Your task to perform on an android device: turn off location history Image 0: 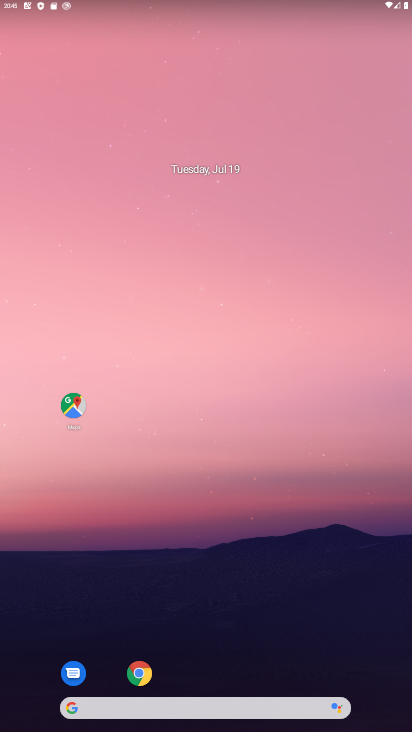
Step 0: drag from (239, 612) to (302, 102)
Your task to perform on an android device: turn off location history Image 1: 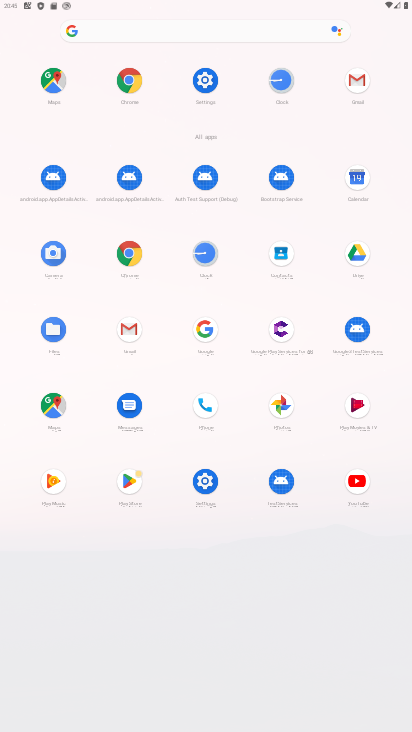
Step 1: click (212, 492)
Your task to perform on an android device: turn off location history Image 2: 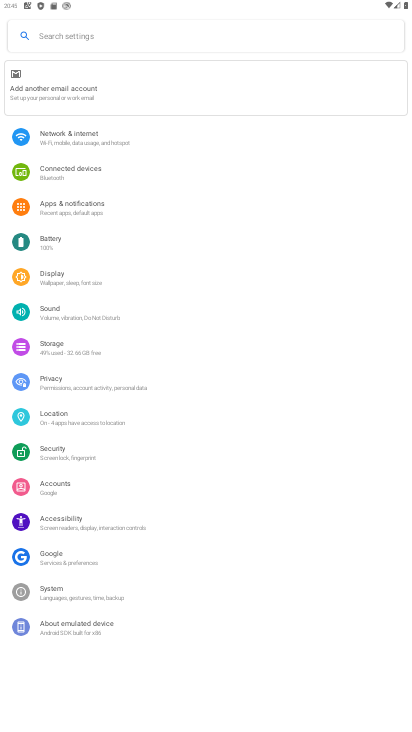
Step 2: click (75, 419)
Your task to perform on an android device: turn off location history Image 3: 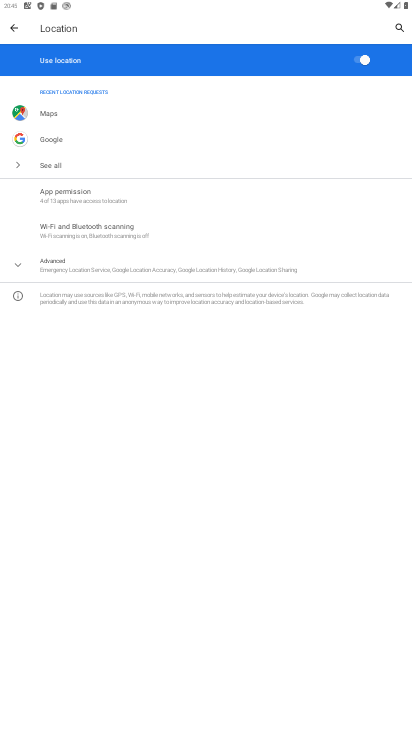
Step 3: click (128, 271)
Your task to perform on an android device: turn off location history Image 4: 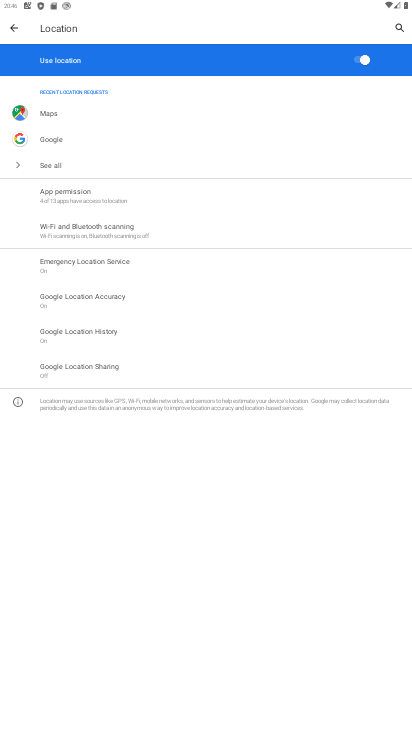
Step 4: click (109, 336)
Your task to perform on an android device: turn off location history Image 5: 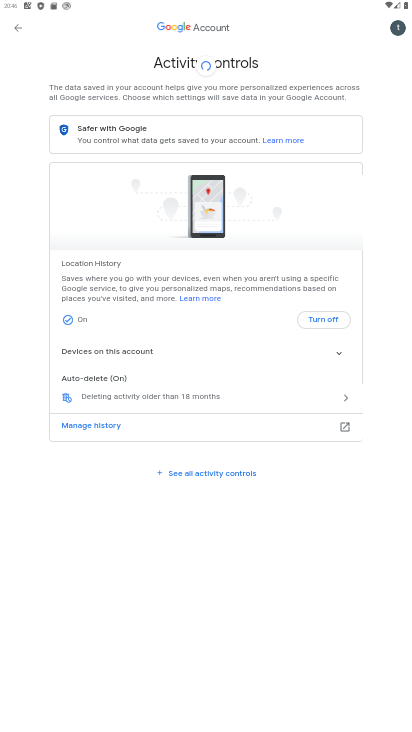
Step 5: click (323, 321)
Your task to perform on an android device: turn off location history Image 6: 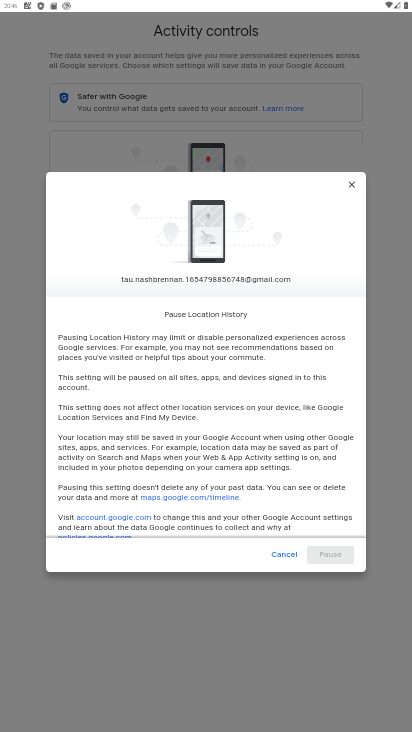
Step 6: drag from (271, 539) to (330, 209)
Your task to perform on an android device: turn off location history Image 7: 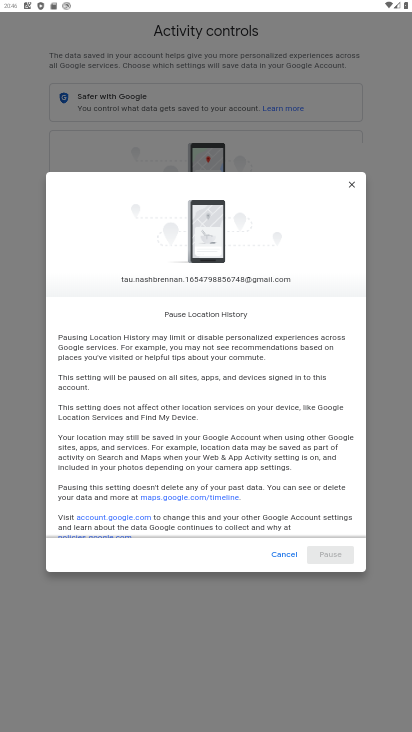
Step 7: drag from (283, 507) to (283, 217)
Your task to perform on an android device: turn off location history Image 8: 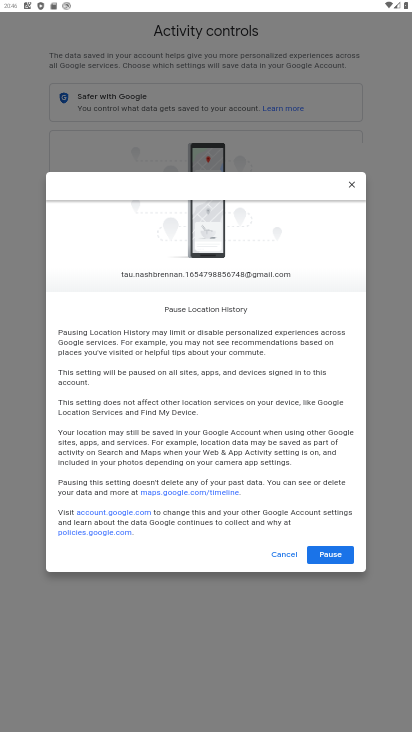
Step 8: click (339, 555)
Your task to perform on an android device: turn off location history Image 9: 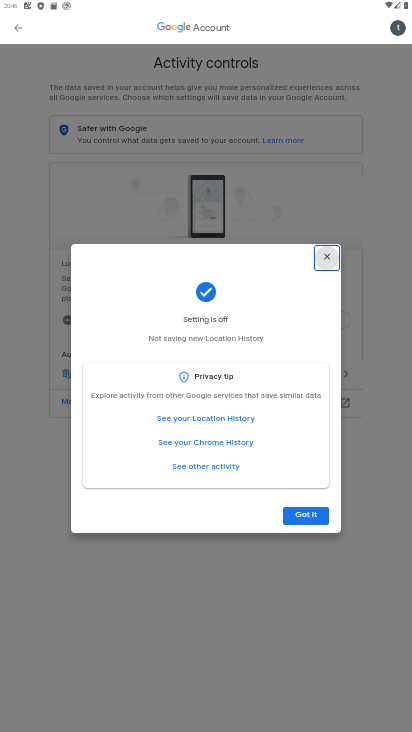
Step 9: click (315, 508)
Your task to perform on an android device: turn off location history Image 10: 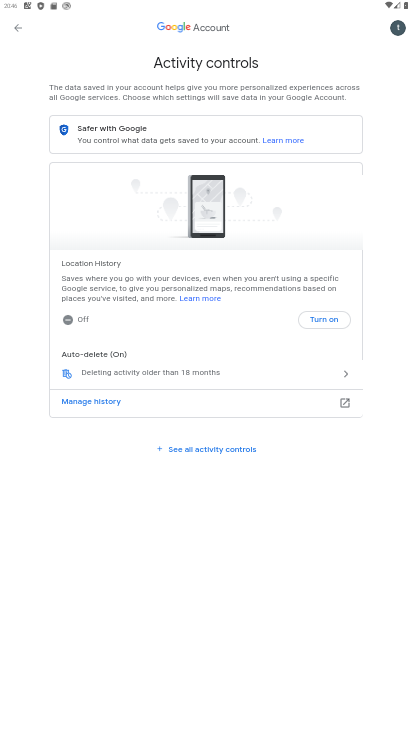
Step 10: task complete